Your task to perform on an android device: refresh tabs in the chrome app Image 0: 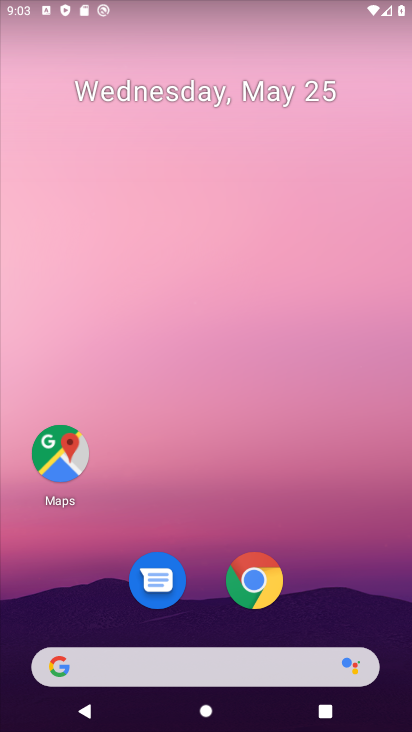
Step 0: press home button
Your task to perform on an android device: refresh tabs in the chrome app Image 1: 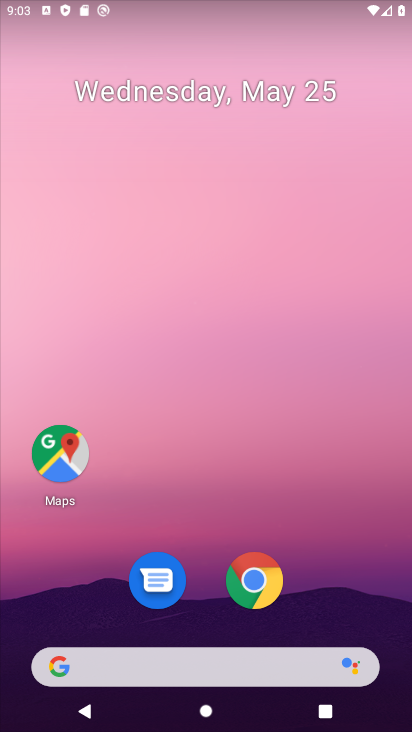
Step 1: click (246, 573)
Your task to perform on an android device: refresh tabs in the chrome app Image 2: 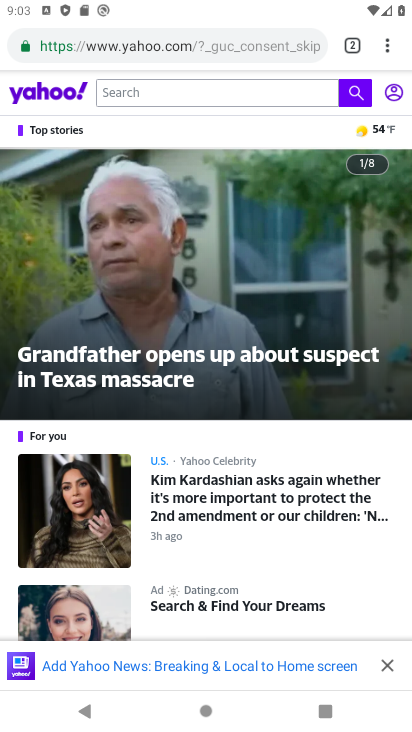
Step 2: click (390, 46)
Your task to perform on an android device: refresh tabs in the chrome app Image 3: 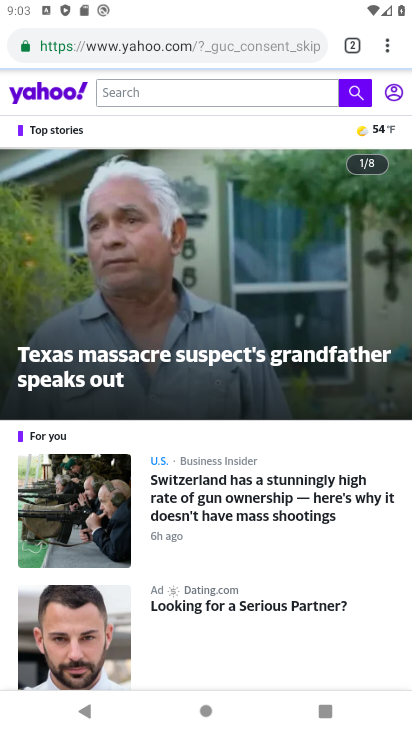
Step 3: click (350, 47)
Your task to perform on an android device: refresh tabs in the chrome app Image 4: 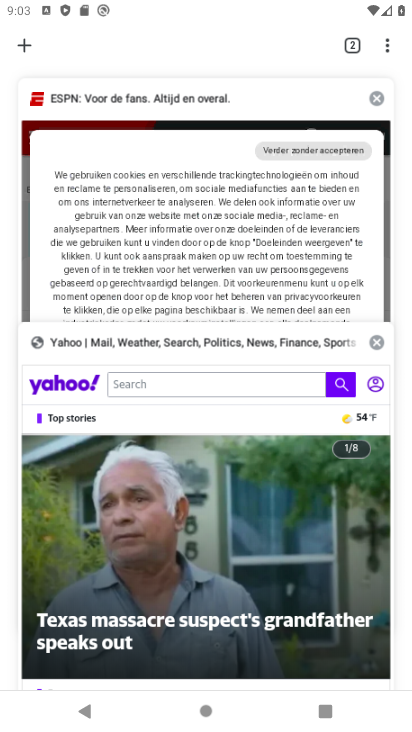
Step 4: click (386, 42)
Your task to perform on an android device: refresh tabs in the chrome app Image 5: 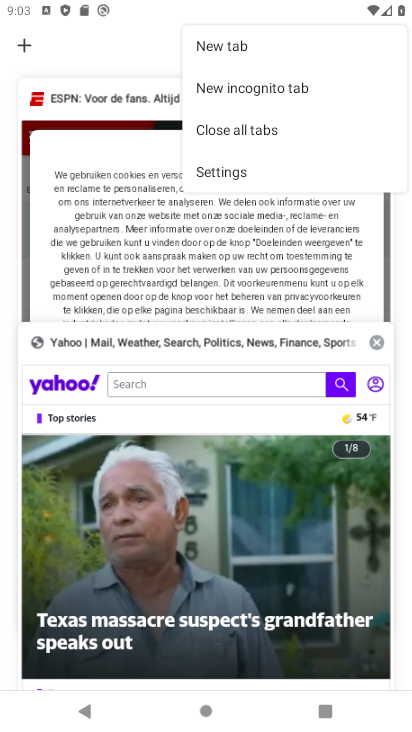
Step 5: click (215, 230)
Your task to perform on an android device: refresh tabs in the chrome app Image 6: 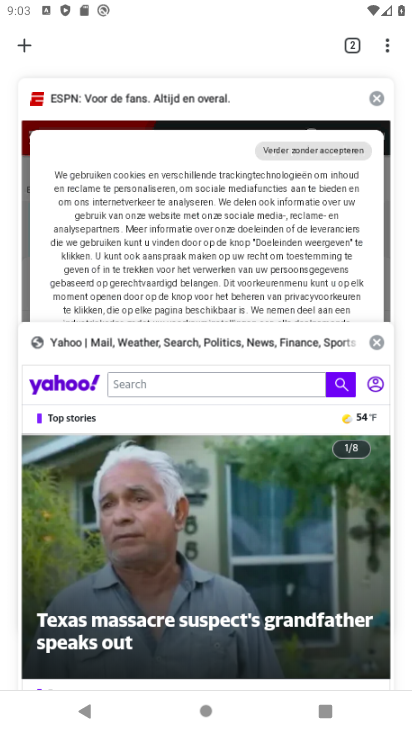
Step 6: click (217, 240)
Your task to perform on an android device: refresh tabs in the chrome app Image 7: 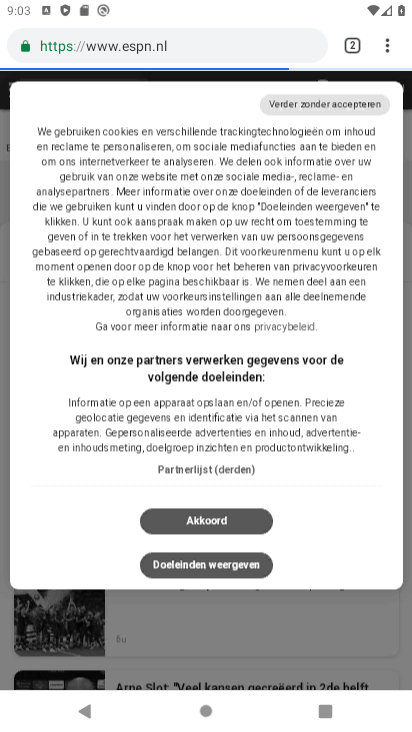
Step 7: click (385, 52)
Your task to perform on an android device: refresh tabs in the chrome app Image 8: 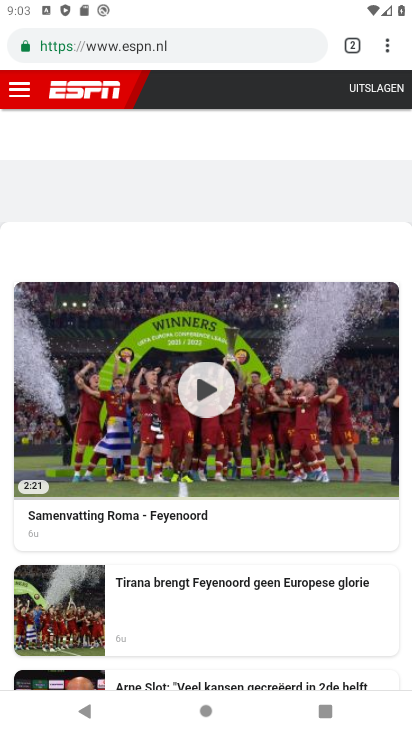
Step 8: click (385, 51)
Your task to perform on an android device: refresh tabs in the chrome app Image 9: 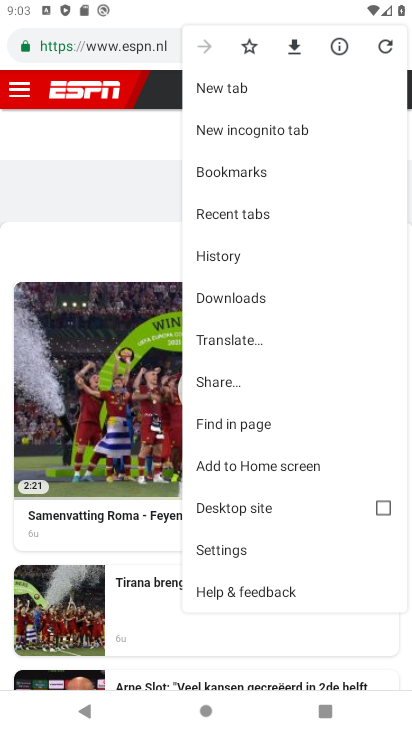
Step 9: click (385, 38)
Your task to perform on an android device: refresh tabs in the chrome app Image 10: 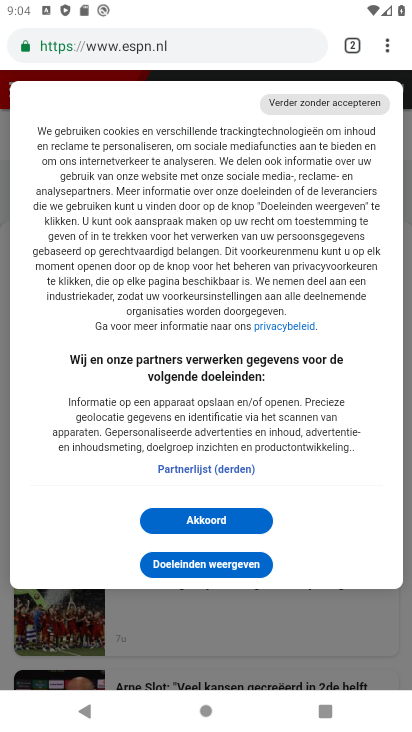
Step 10: task complete